Your task to perform on an android device: allow cookies in the chrome app Image 0: 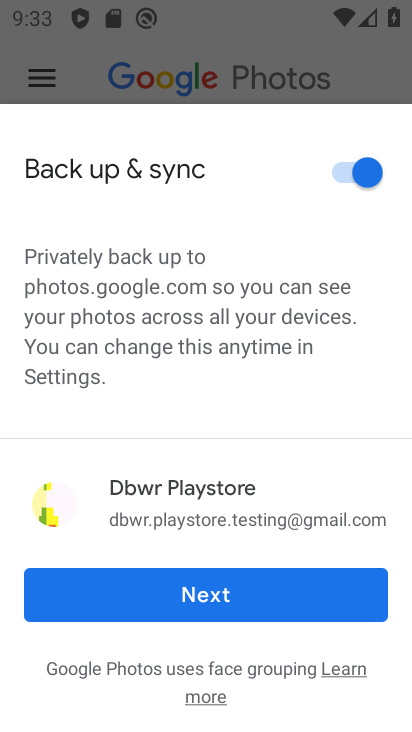
Step 0: press home button
Your task to perform on an android device: allow cookies in the chrome app Image 1: 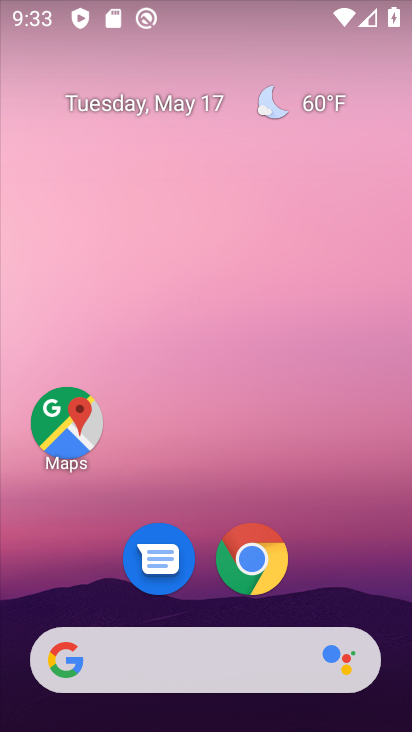
Step 1: click (264, 567)
Your task to perform on an android device: allow cookies in the chrome app Image 2: 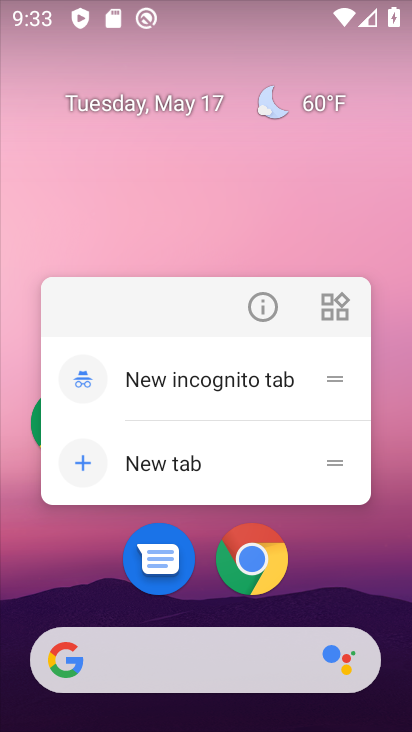
Step 2: click (248, 550)
Your task to perform on an android device: allow cookies in the chrome app Image 3: 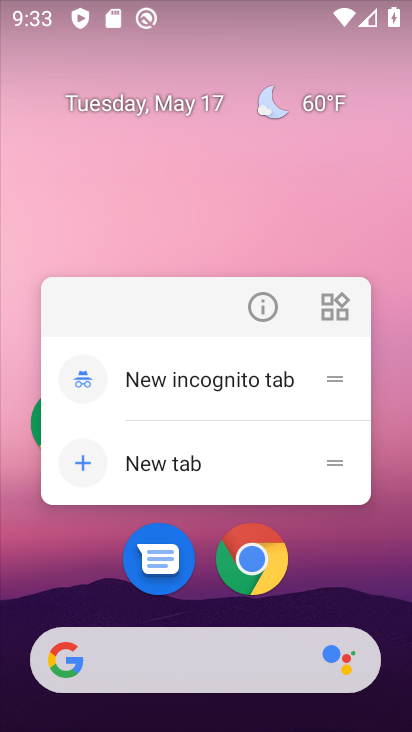
Step 3: click (258, 556)
Your task to perform on an android device: allow cookies in the chrome app Image 4: 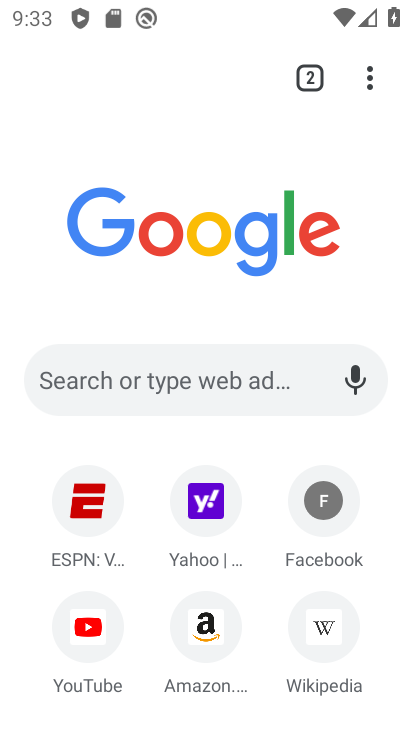
Step 4: drag from (372, 75) to (188, 593)
Your task to perform on an android device: allow cookies in the chrome app Image 5: 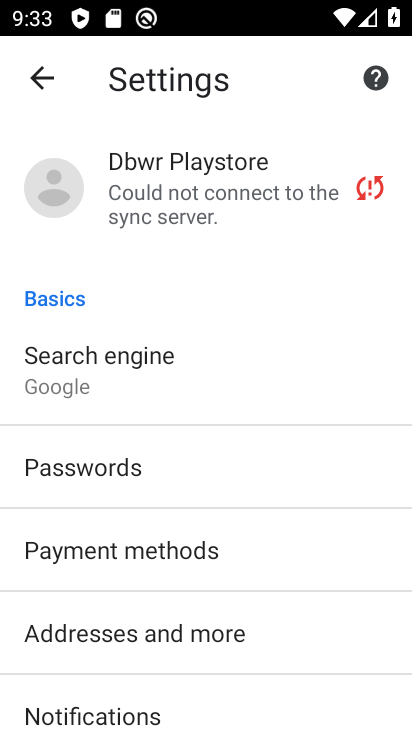
Step 5: drag from (334, 662) to (351, 288)
Your task to perform on an android device: allow cookies in the chrome app Image 6: 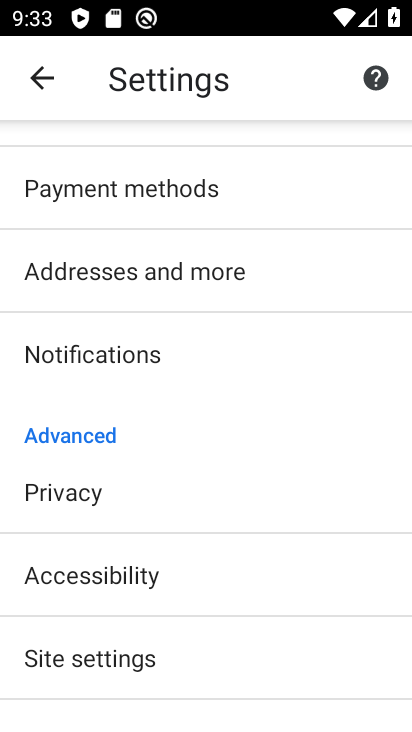
Step 6: click (157, 652)
Your task to perform on an android device: allow cookies in the chrome app Image 7: 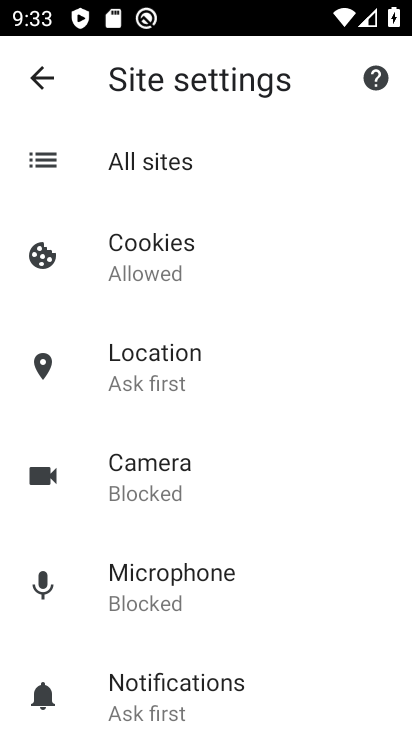
Step 7: click (175, 256)
Your task to perform on an android device: allow cookies in the chrome app Image 8: 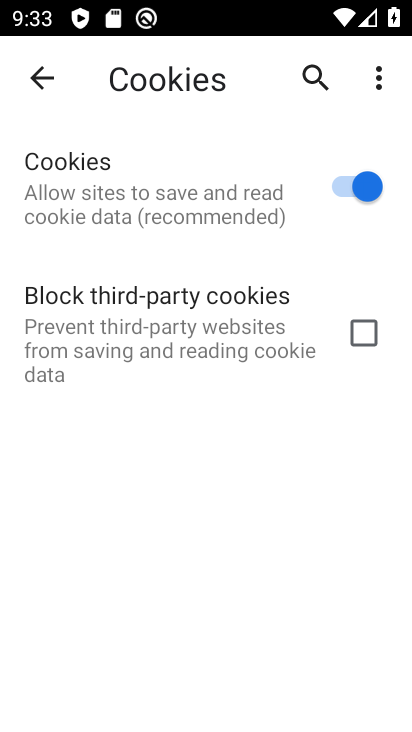
Step 8: task complete